Your task to perform on an android device: toggle javascript in the chrome app Image 0: 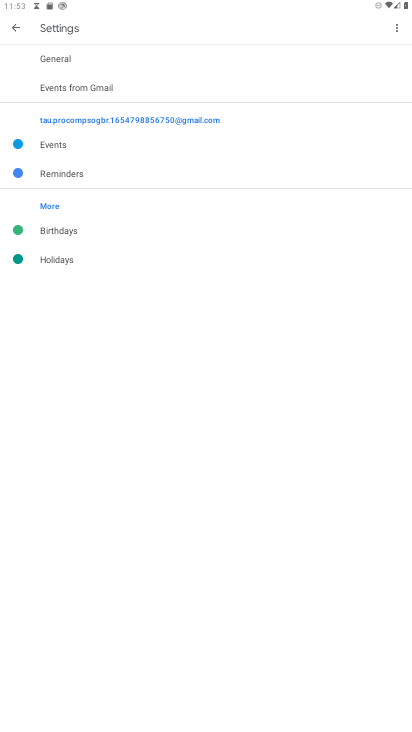
Step 0: press home button
Your task to perform on an android device: toggle javascript in the chrome app Image 1: 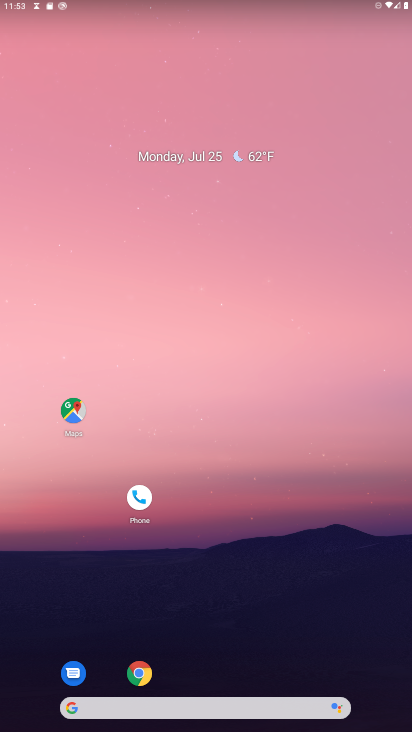
Step 1: click (142, 685)
Your task to perform on an android device: toggle javascript in the chrome app Image 2: 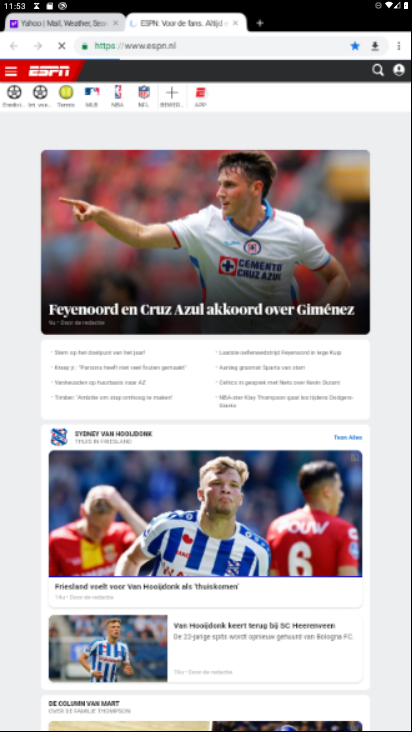
Step 2: drag from (396, 47) to (303, 303)
Your task to perform on an android device: toggle javascript in the chrome app Image 3: 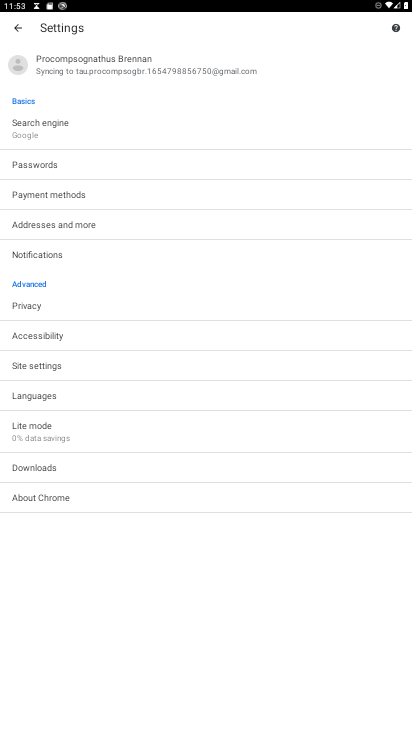
Step 3: click (67, 361)
Your task to perform on an android device: toggle javascript in the chrome app Image 4: 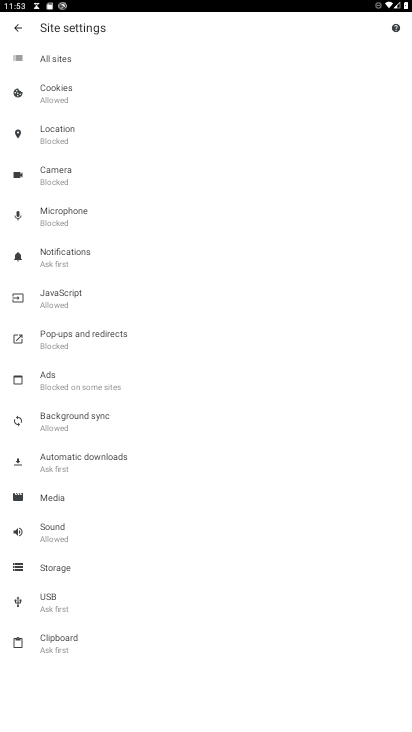
Step 4: click (48, 297)
Your task to perform on an android device: toggle javascript in the chrome app Image 5: 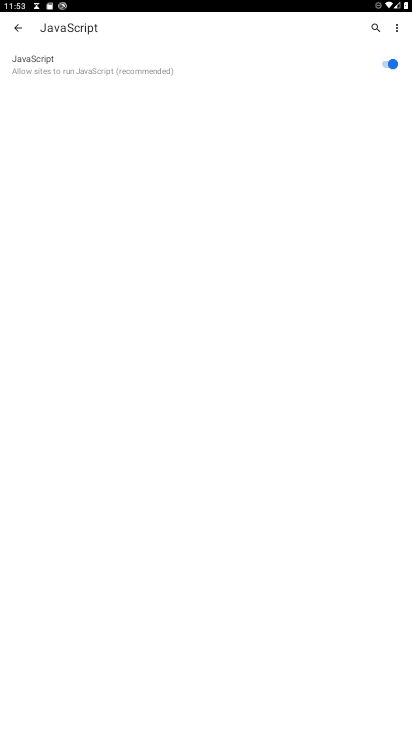
Step 5: click (385, 59)
Your task to perform on an android device: toggle javascript in the chrome app Image 6: 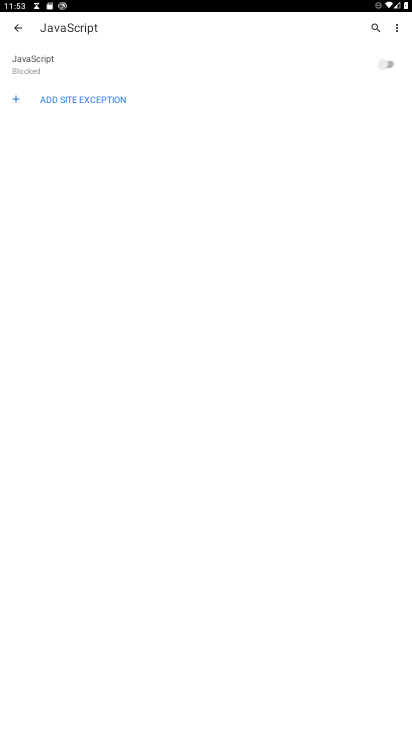
Step 6: task complete